Your task to perform on an android device: What is the news today? Image 0: 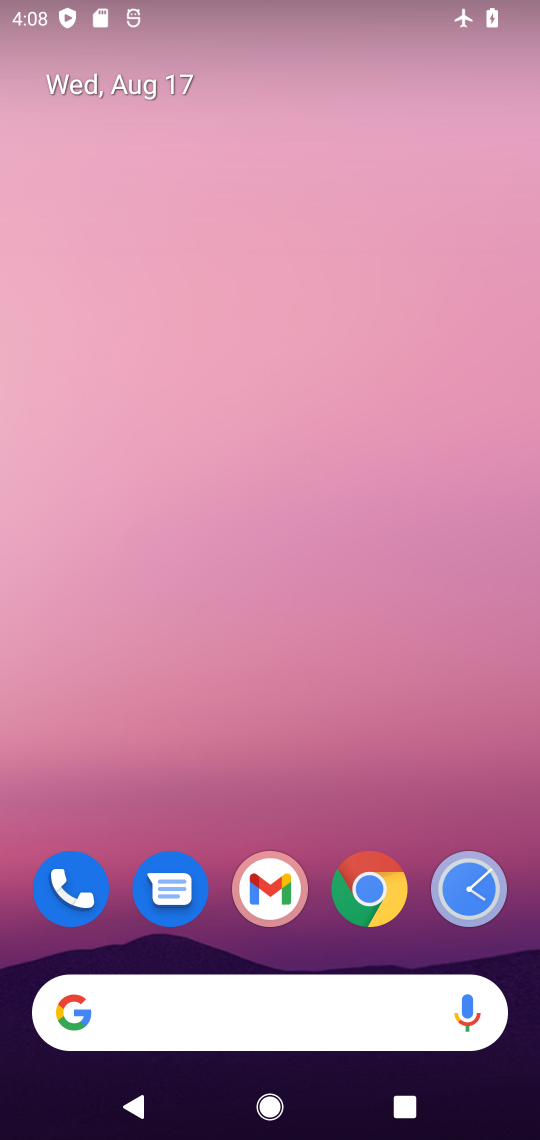
Step 0: drag from (251, 792) to (228, 106)
Your task to perform on an android device: What is the news today? Image 1: 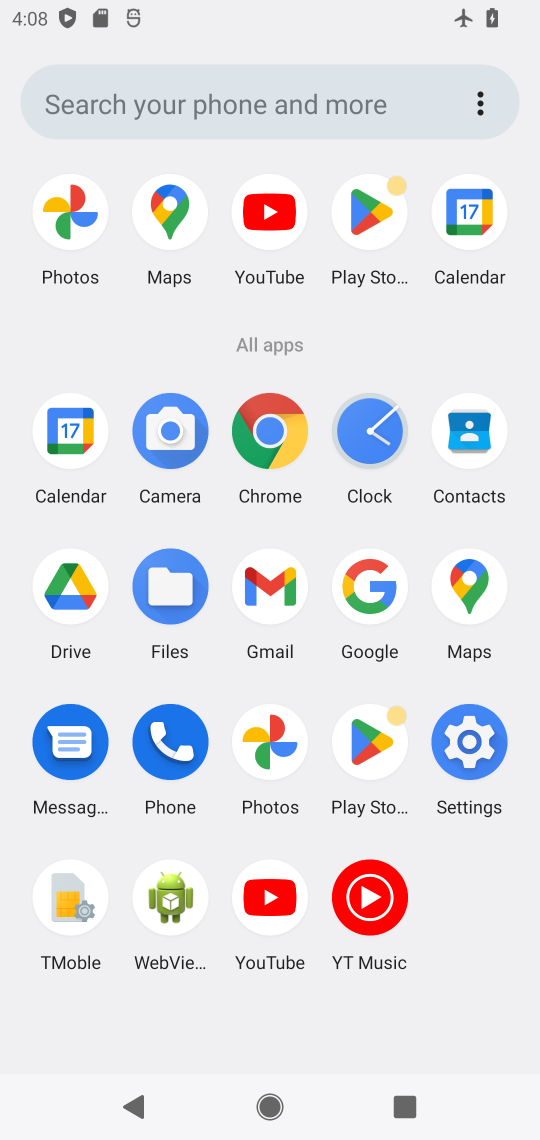
Step 1: click (368, 585)
Your task to perform on an android device: What is the news today? Image 2: 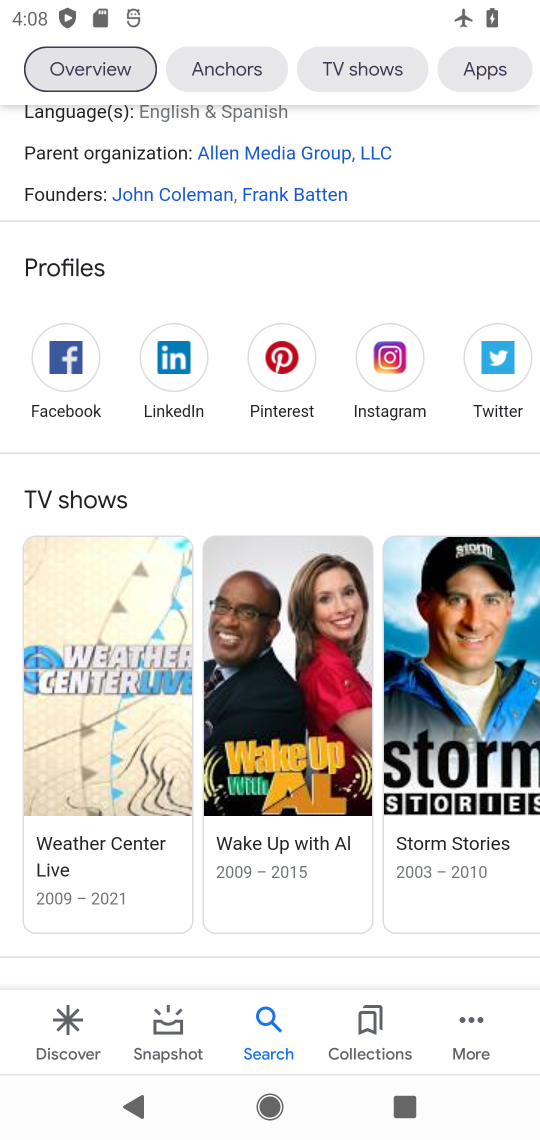
Step 2: drag from (308, 243) to (381, 911)
Your task to perform on an android device: What is the news today? Image 3: 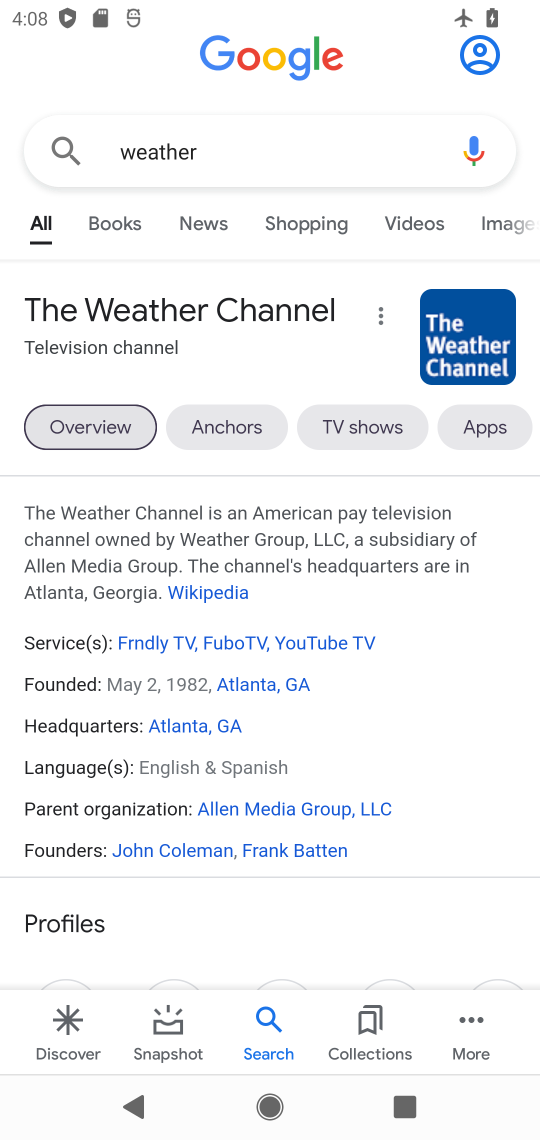
Step 3: click (228, 153)
Your task to perform on an android device: What is the news today? Image 4: 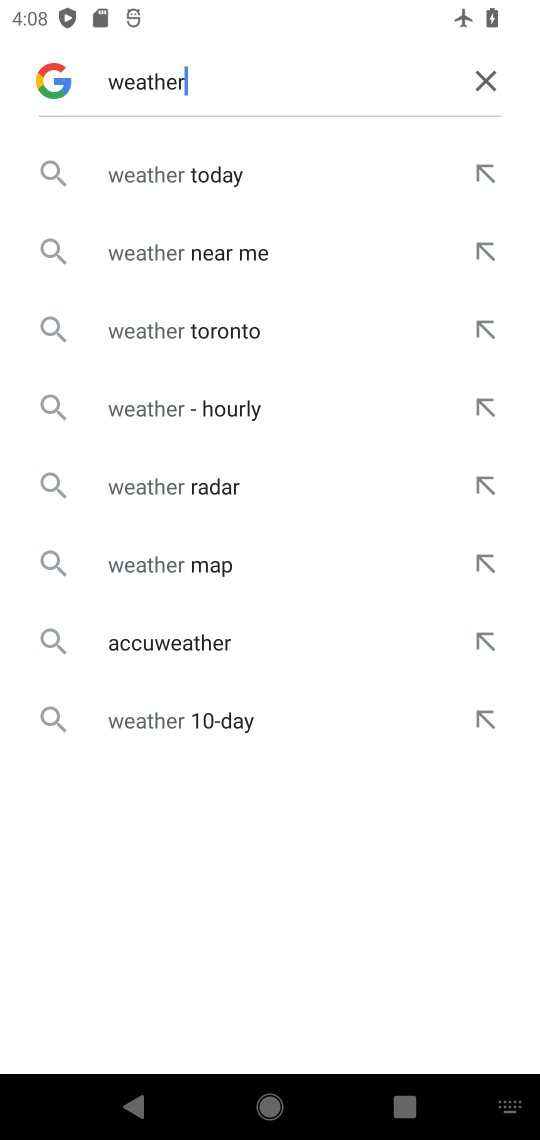
Step 4: click (484, 78)
Your task to perform on an android device: What is the news today? Image 5: 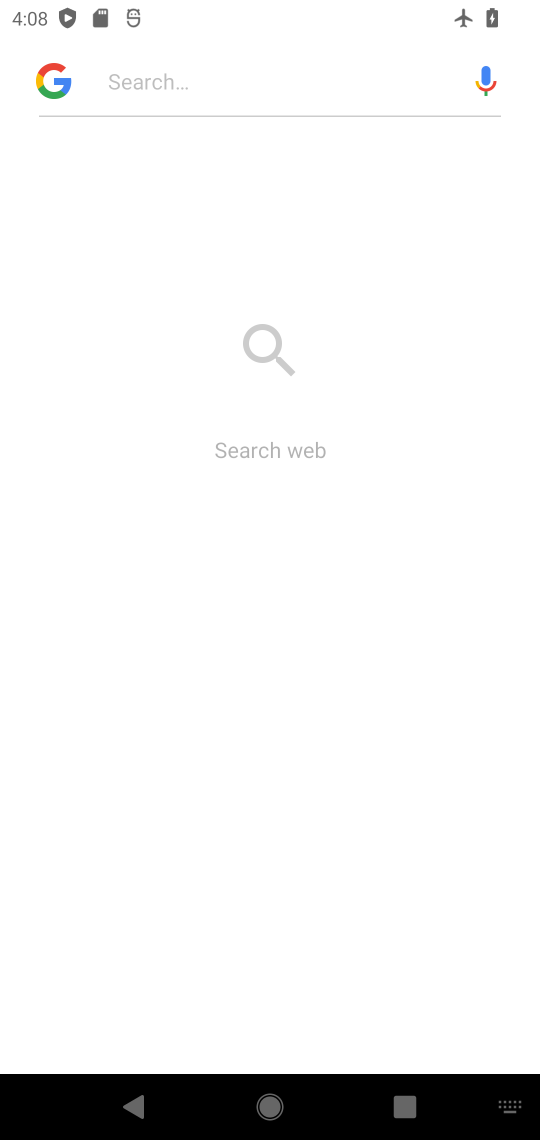
Step 5: type "news today"
Your task to perform on an android device: What is the news today? Image 6: 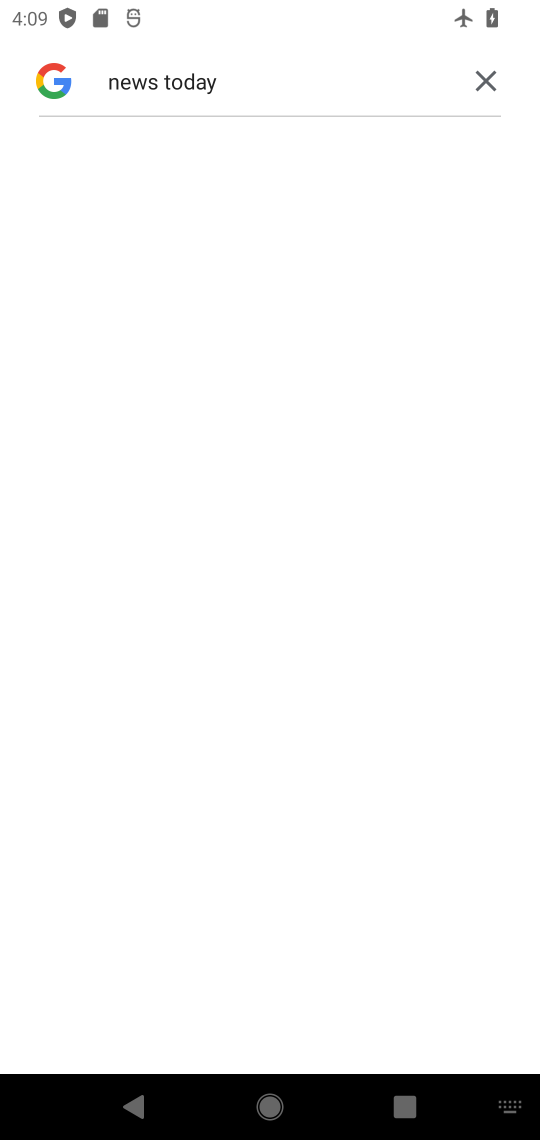
Step 6: type ""
Your task to perform on an android device: What is the news today? Image 7: 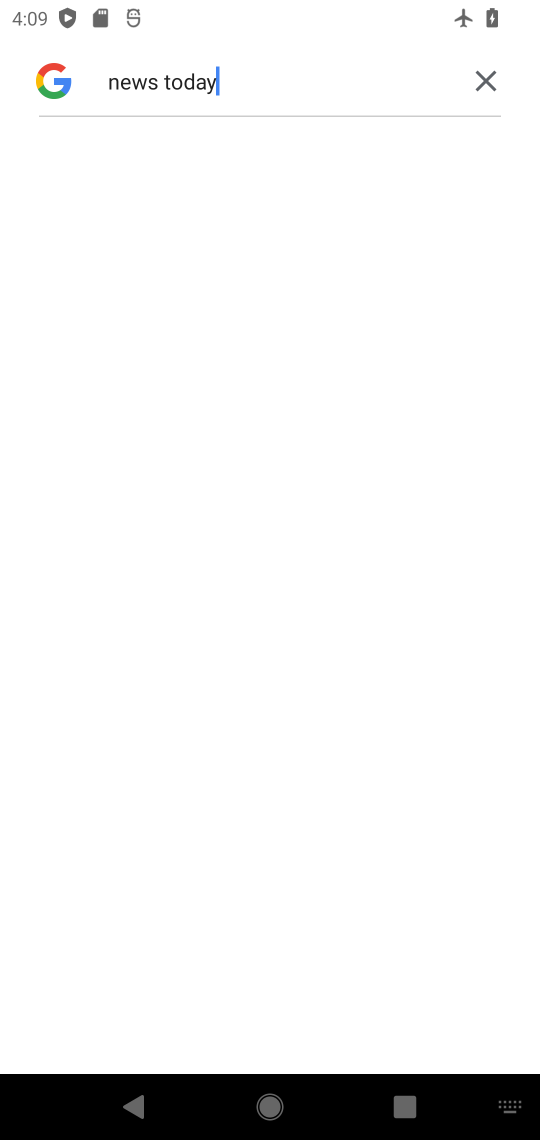
Step 7: click (479, 67)
Your task to perform on an android device: What is the news today? Image 8: 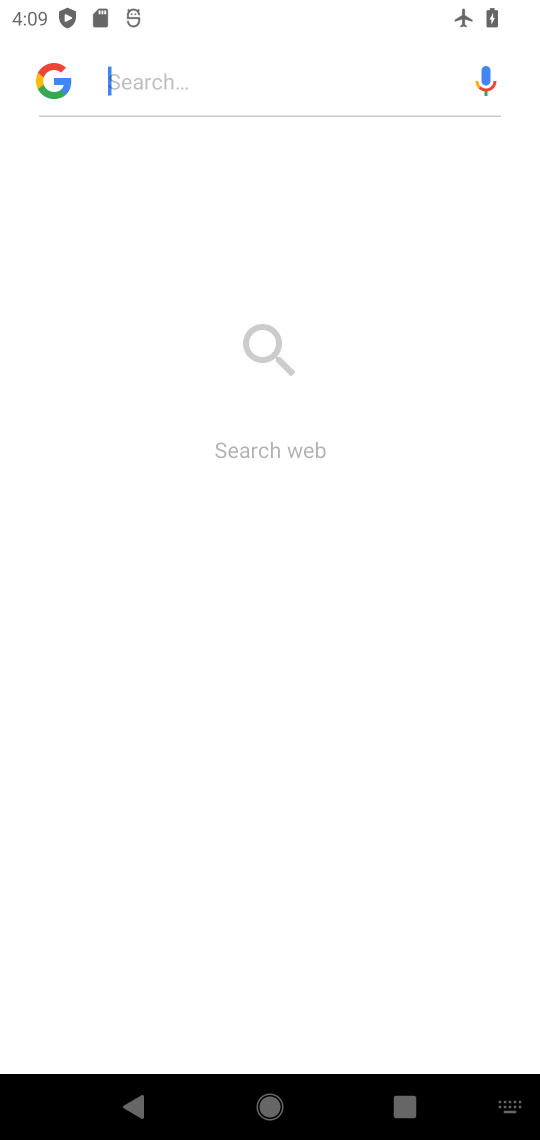
Step 8: task complete